Your task to perform on an android device: Play the last video I watched on Youtube Image 0: 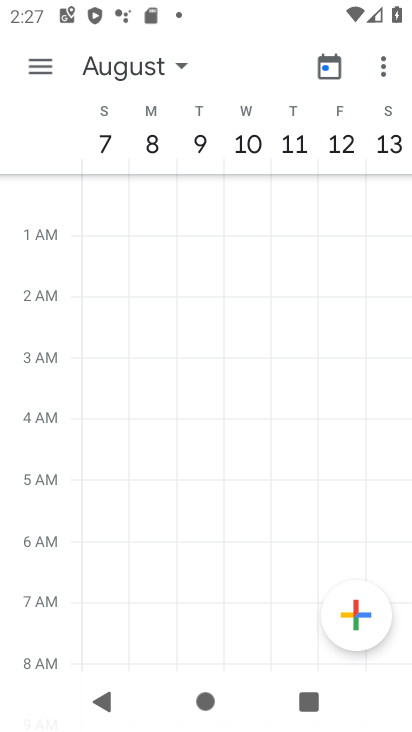
Step 0: press home button
Your task to perform on an android device: Play the last video I watched on Youtube Image 1: 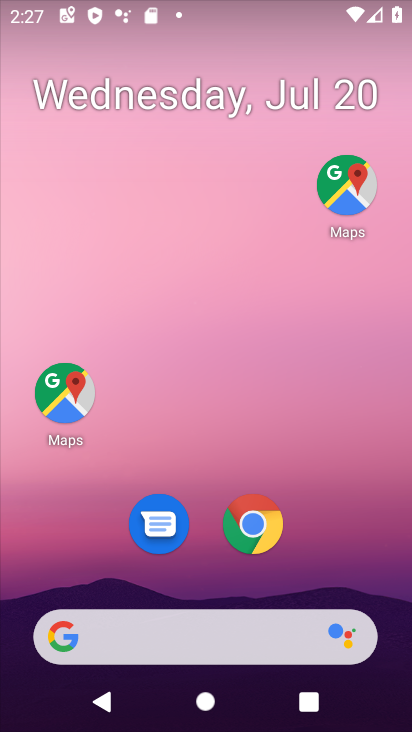
Step 1: drag from (215, 432) to (213, 15)
Your task to perform on an android device: Play the last video I watched on Youtube Image 2: 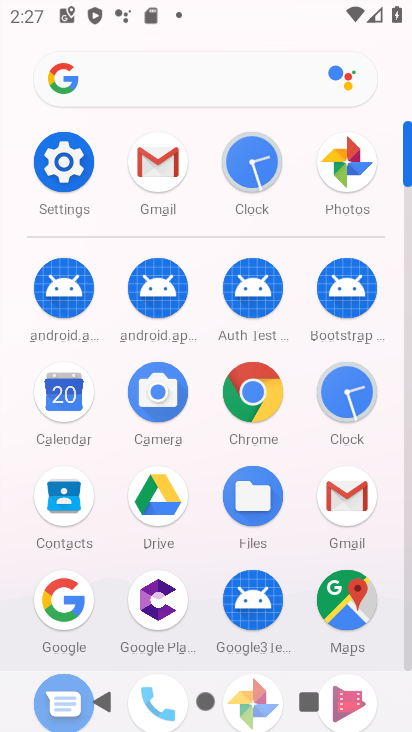
Step 2: drag from (185, 504) to (225, 141)
Your task to perform on an android device: Play the last video I watched on Youtube Image 3: 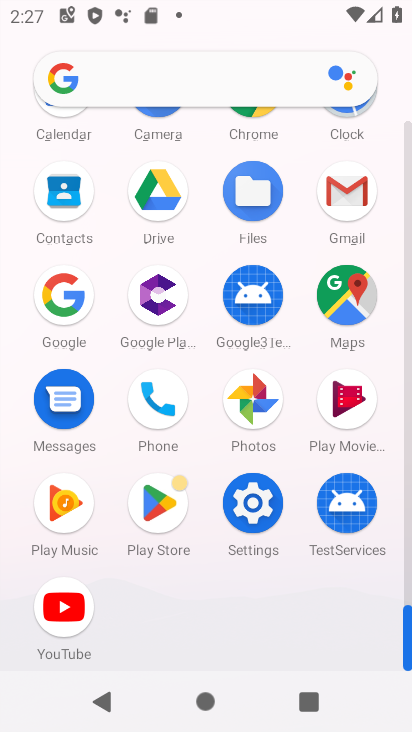
Step 3: click (75, 598)
Your task to perform on an android device: Play the last video I watched on Youtube Image 4: 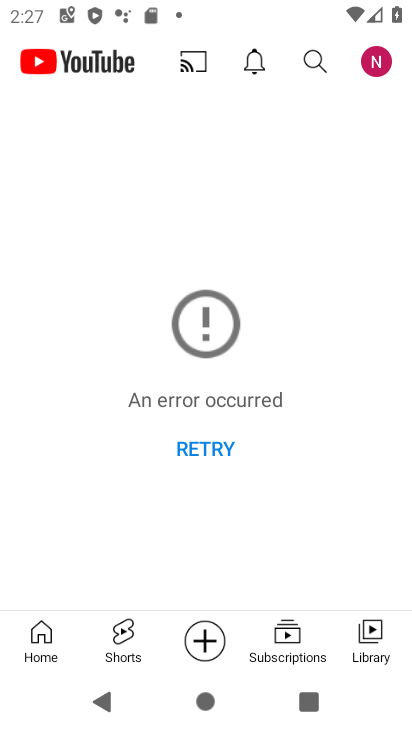
Step 4: click (201, 443)
Your task to perform on an android device: Play the last video I watched on Youtube Image 5: 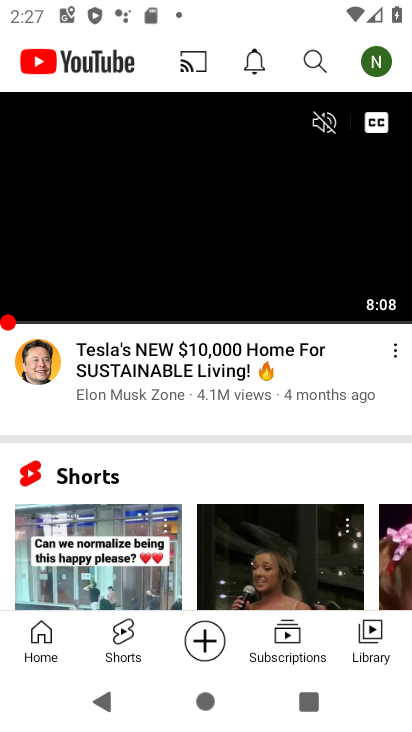
Step 5: click (357, 631)
Your task to perform on an android device: Play the last video I watched on Youtube Image 6: 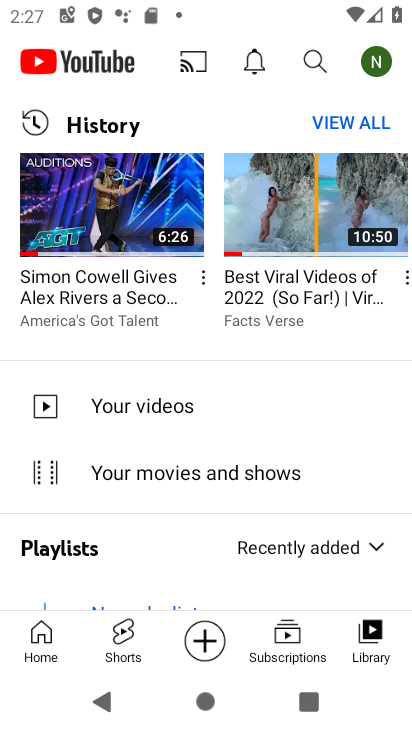
Step 6: click (140, 208)
Your task to perform on an android device: Play the last video I watched on Youtube Image 7: 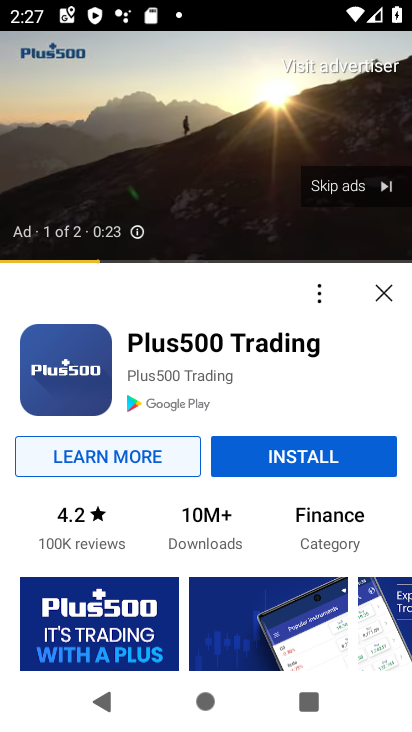
Step 7: click (355, 180)
Your task to perform on an android device: Play the last video I watched on Youtube Image 8: 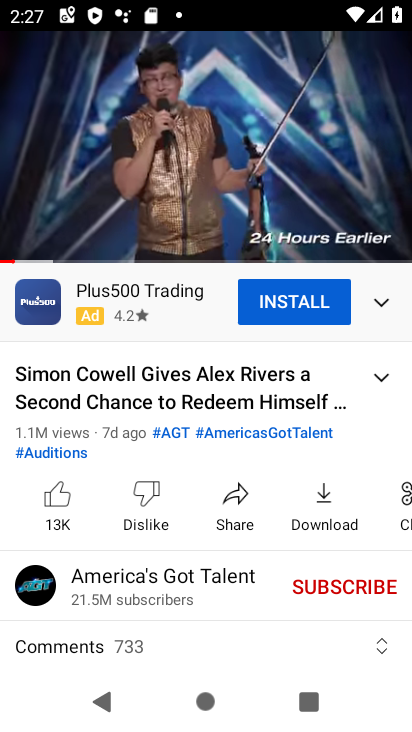
Step 8: task complete